Your task to perform on an android device: turn off wifi Image 0: 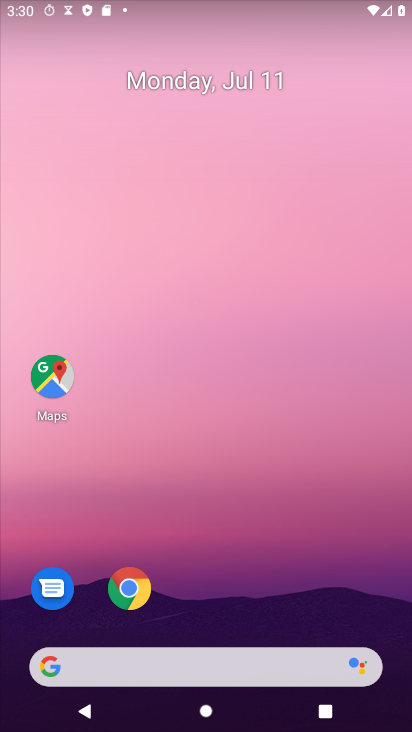
Step 0: drag from (260, 573) to (274, 26)
Your task to perform on an android device: turn off wifi Image 1: 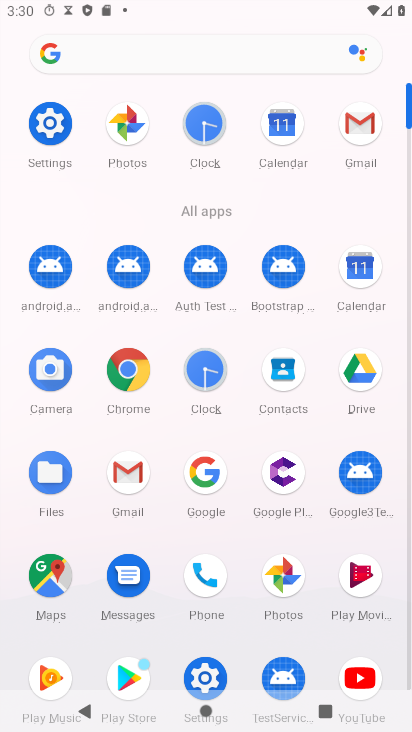
Step 1: click (53, 128)
Your task to perform on an android device: turn off wifi Image 2: 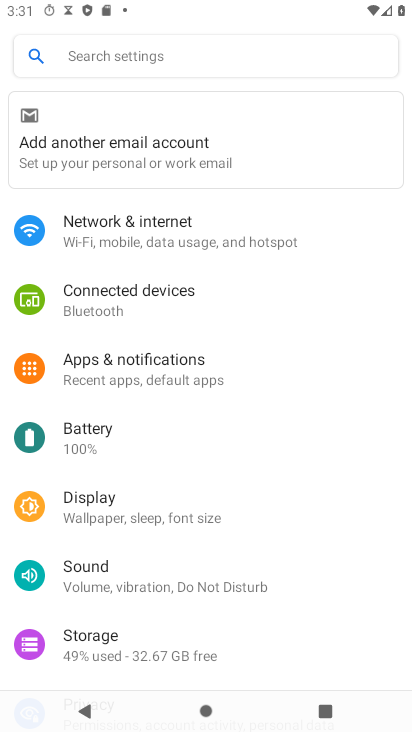
Step 2: click (117, 224)
Your task to perform on an android device: turn off wifi Image 3: 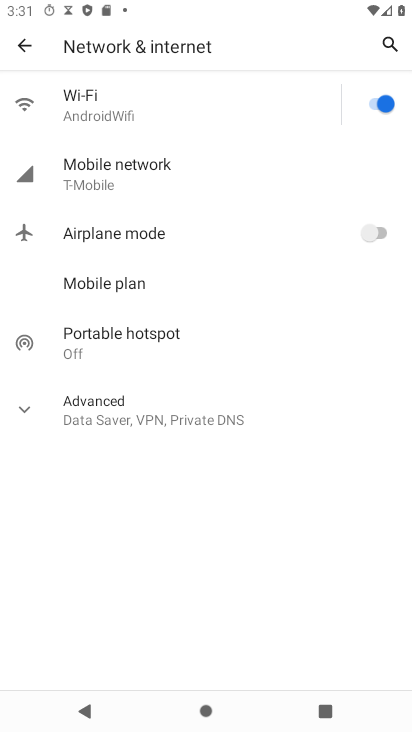
Step 3: click (375, 108)
Your task to perform on an android device: turn off wifi Image 4: 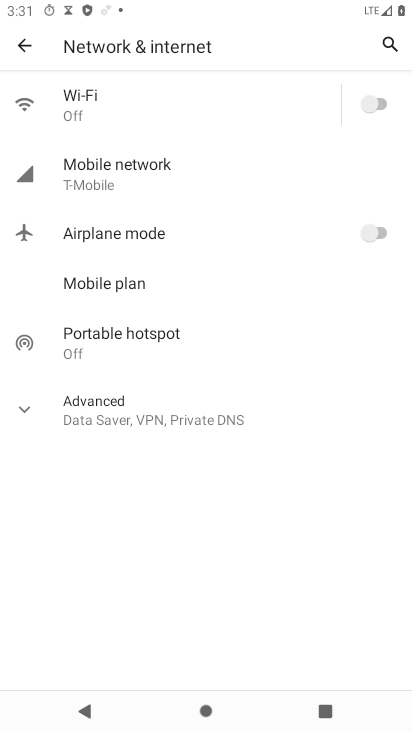
Step 4: task complete